Your task to perform on an android device: turn on sleep mode Image 0: 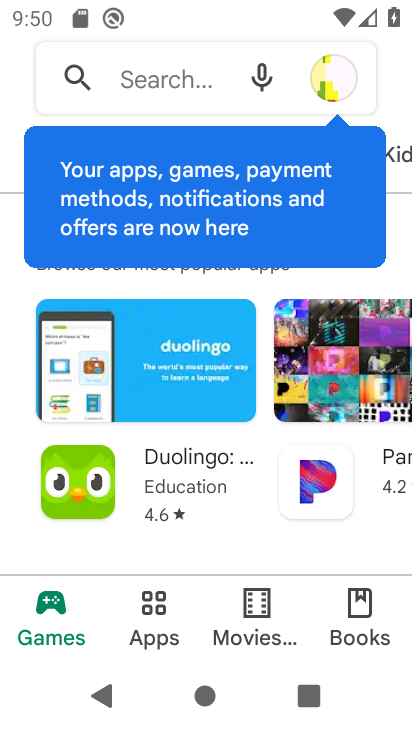
Step 0: press back button
Your task to perform on an android device: turn on sleep mode Image 1: 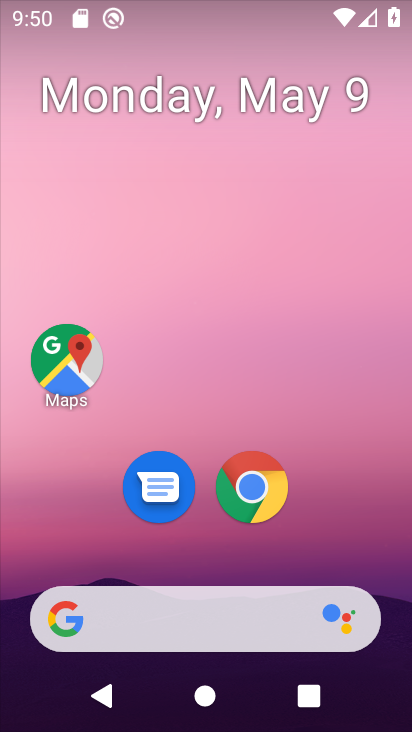
Step 1: drag from (337, 526) to (287, 6)
Your task to perform on an android device: turn on sleep mode Image 2: 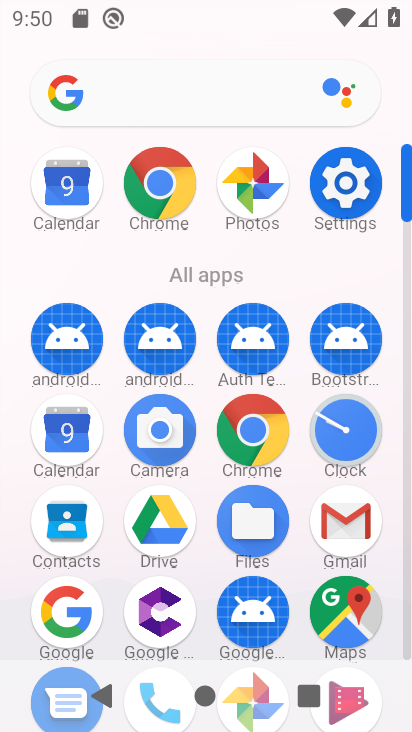
Step 2: click (338, 177)
Your task to perform on an android device: turn on sleep mode Image 3: 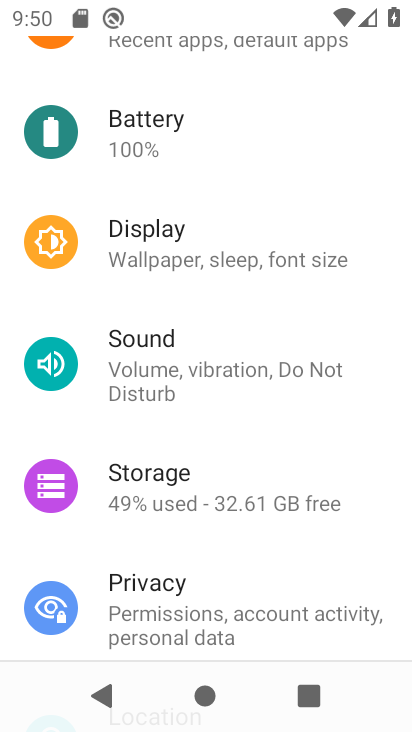
Step 3: drag from (296, 521) to (261, 124)
Your task to perform on an android device: turn on sleep mode Image 4: 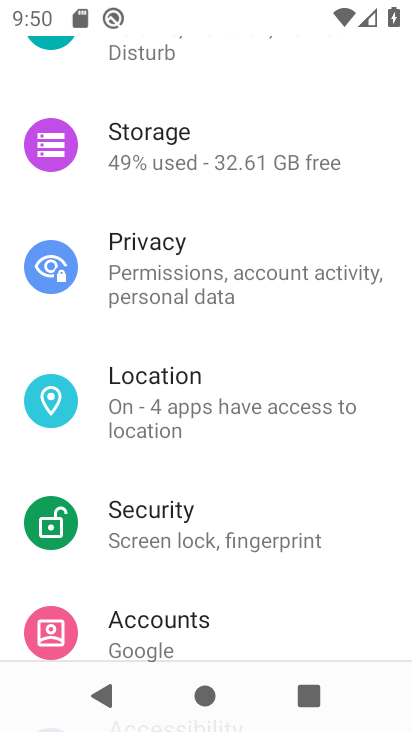
Step 4: drag from (264, 554) to (276, 120)
Your task to perform on an android device: turn on sleep mode Image 5: 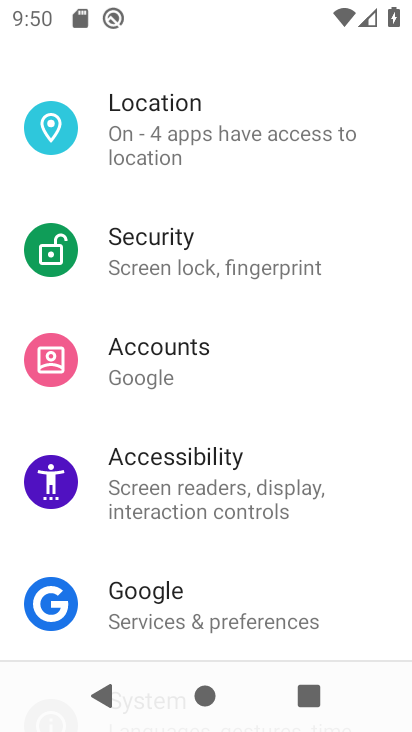
Step 5: drag from (248, 519) to (277, 118)
Your task to perform on an android device: turn on sleep mode Image 6: 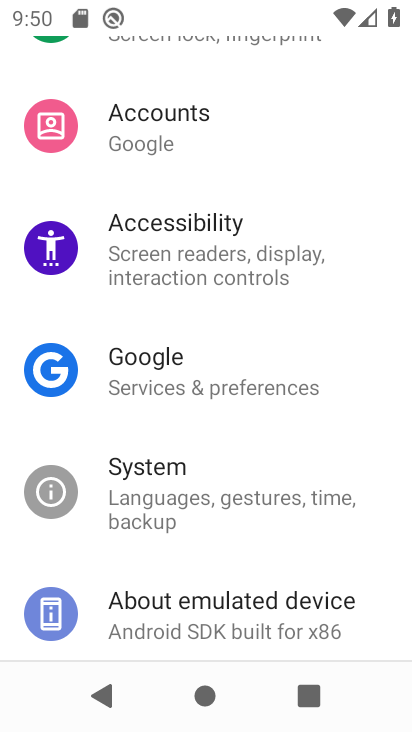
Step 6: drag from (264, 502) to (264, 120)
Your task to perform on an android device: turn on sleep mode Image 7: 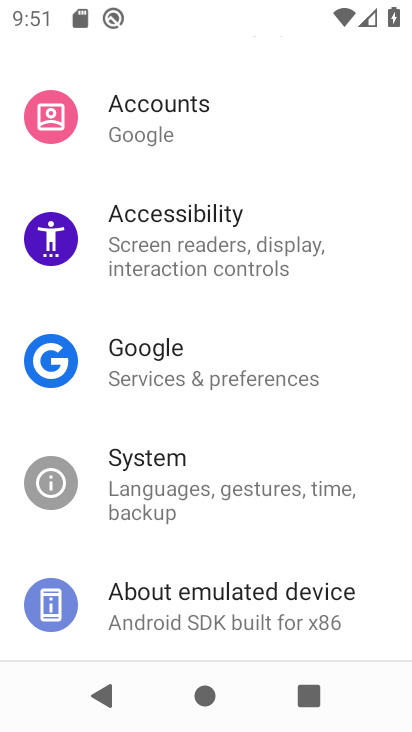
Step 7: drag from (260, 154) to (260, 566)
Your task to perform on an android device: turn on sleep mode Image 8: 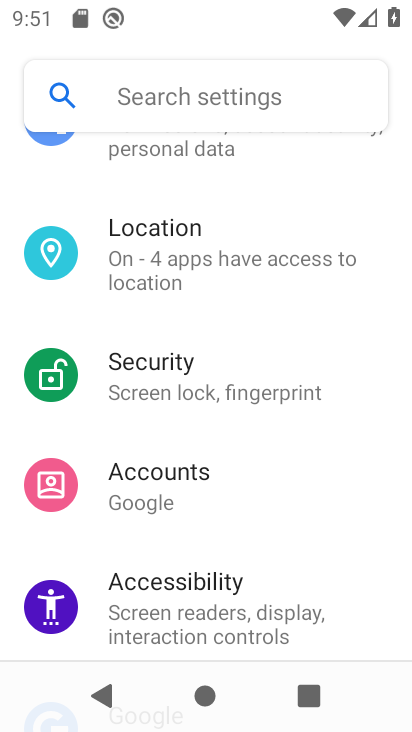
Step 8: drag from (254, 270) to (255, 568)
Your task to perform on an android device: turn on sleep mode Image 9: 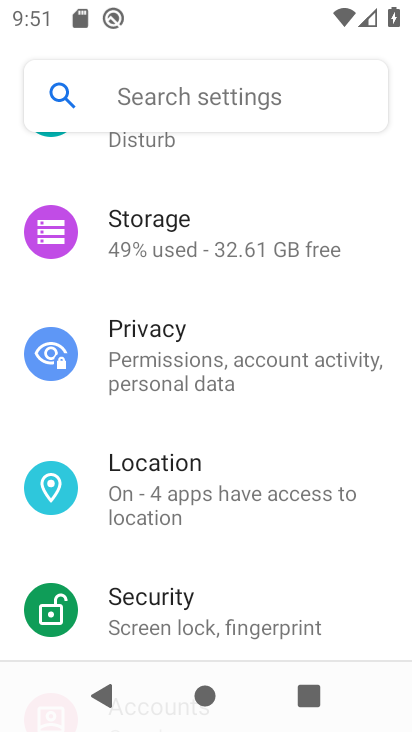
Step 9: drag from (287, 248) to (279, 562)
Your task to perform on an android device: turn on sleep mode Image 10: 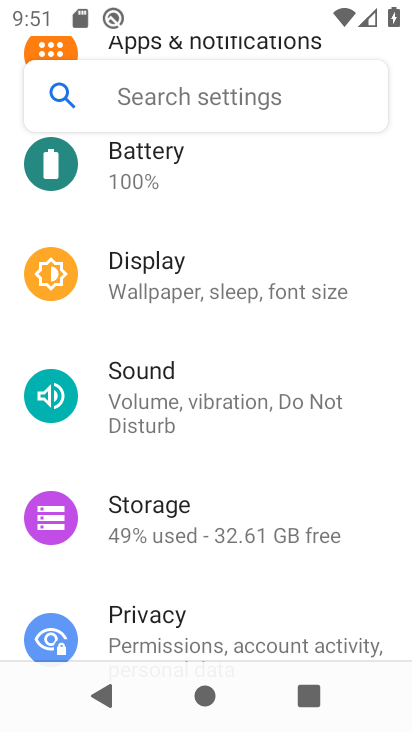
Step 10: click (259, 298)
Your task to perform on an android device: turn on sleep mode Image 11: 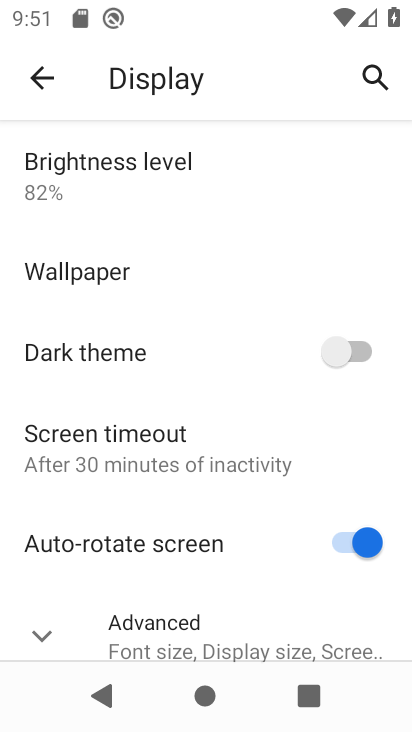
Step 11: click (63, 637)
Your task to perform on an android device: turn on sleep mode Image 12: 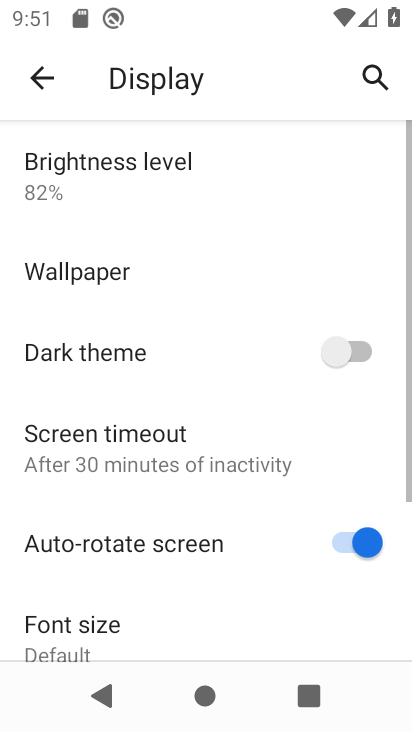
Step 12: task complete